Your task to perform on an android device: Show me popular games on the Play Store Image 0: 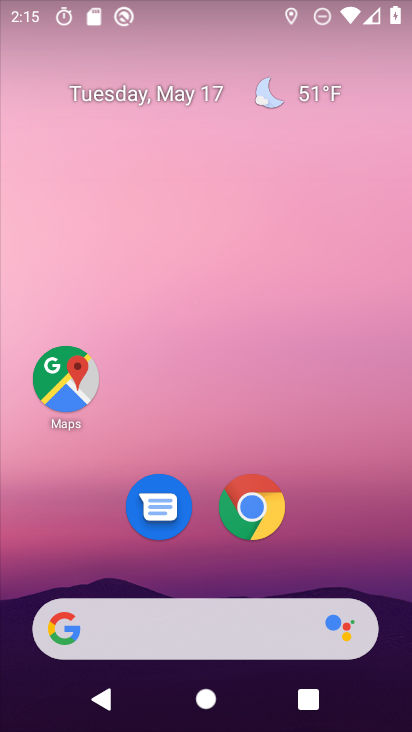
Step 0: drag from (215, 561) to (226, 105)
Your task to perform on an android device: Show me popular games on the Play Store Image 1: 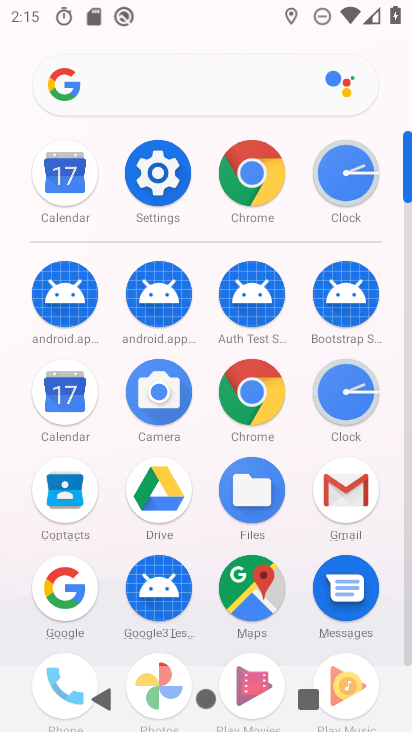
Step 1: drag from (118, 619) to (124, 319)
Your task to perform on an android device: Show me popular games on the Play Store Image 2: 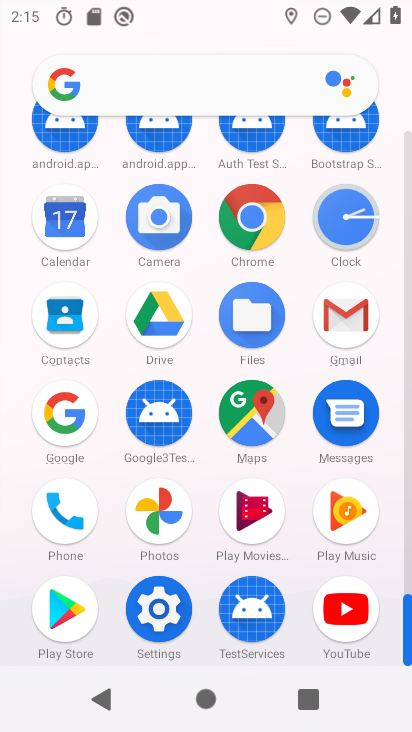
Step 2: click (69, 593)
Your task to perform on an android device: Show me popular games on the Play Store Image 3: 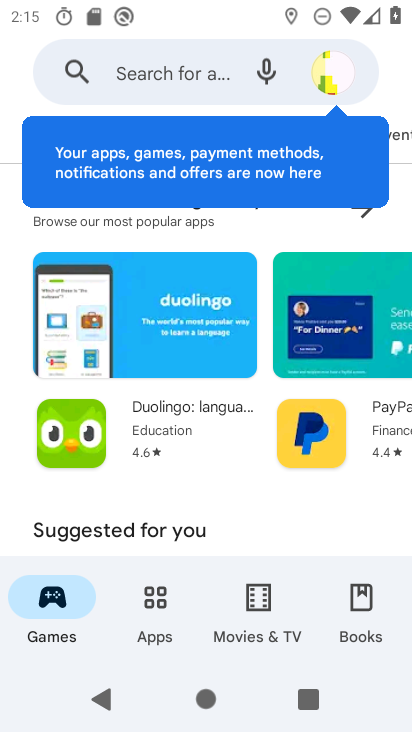
Step 3: drag from (252, 521) to (258, 148)
Your task to perform on an android device: Show me popular games on the Play Store Image 4: 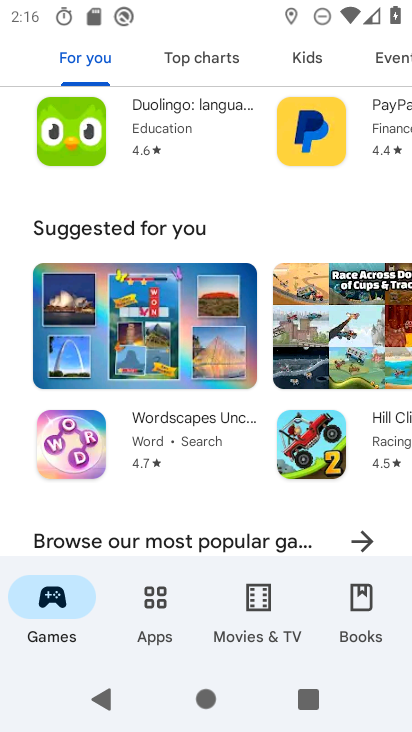
Step 4: drag from (227, 497) to (231, 301)
Your task to perform on an android device: Show me popular games on the Play Store Image 5: 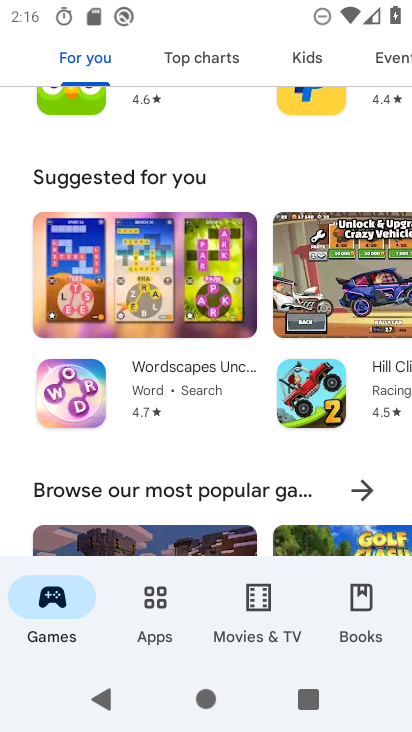
Step 5: click (323, 487)
Your task to perform on an android device: Show me popular games on the Play Store Image 6: 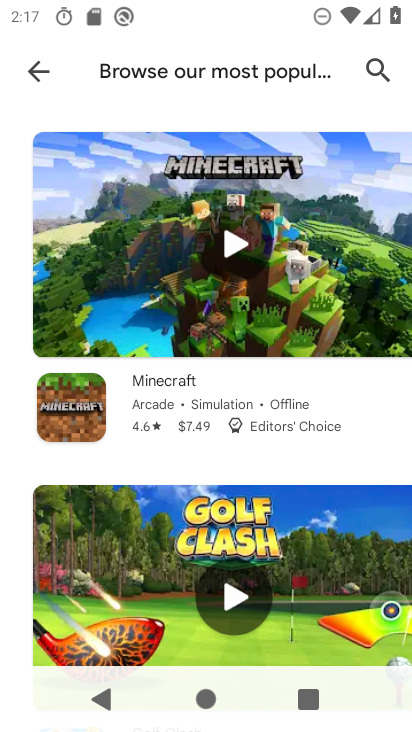
Step 6: task complete